Your task to perform on an android device: Open the map Image 0: 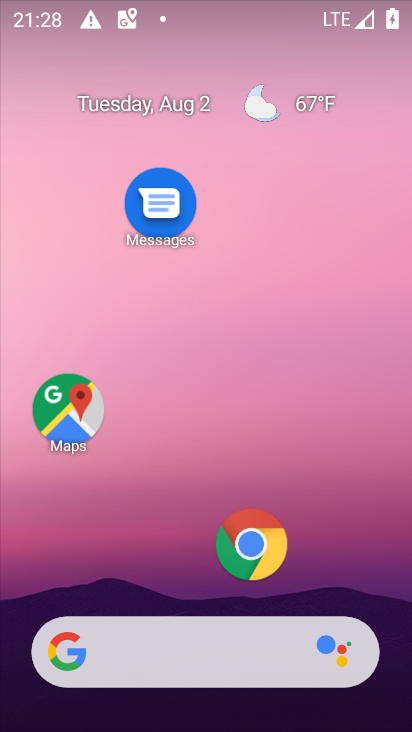
Step 0: click (112, 410)
Your task to perform on an android device: Open the map Image 1: 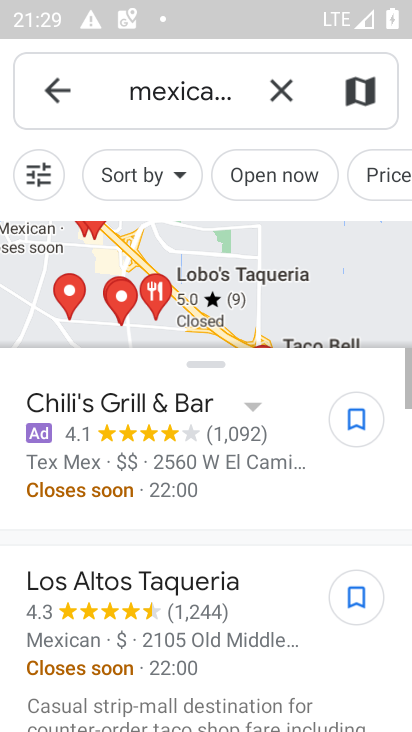
Step 1: task complete